Your task to perform on an android device: Go to location settings Image 0: 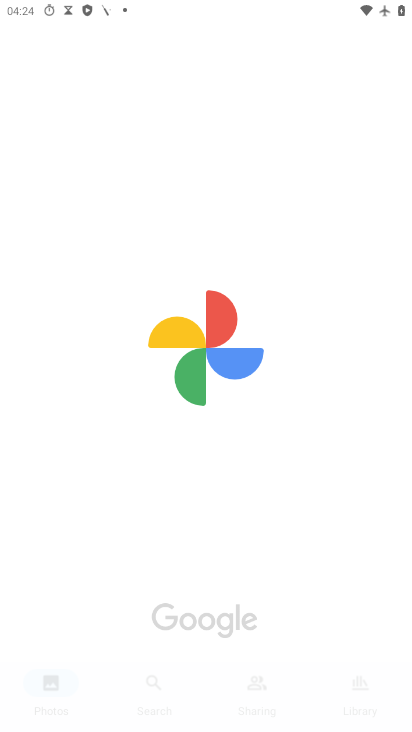
Step 0: drag from (277, 547) to (184, 25)
Your task to perform on an android device: Go to location settings Image 1: 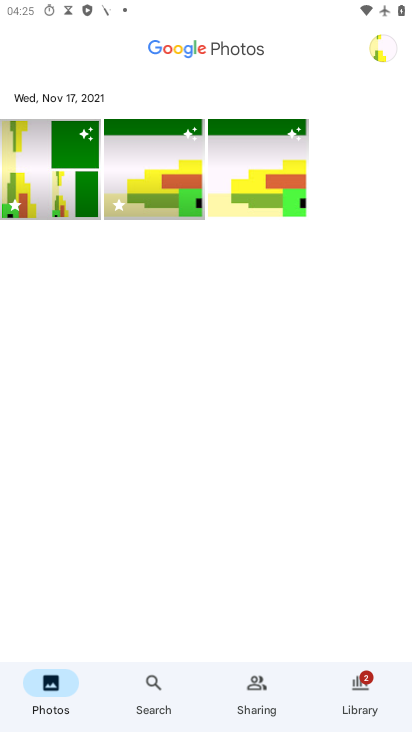
Step 1: press back button
Your task to perform on an android device: Go to location settings Image 2: 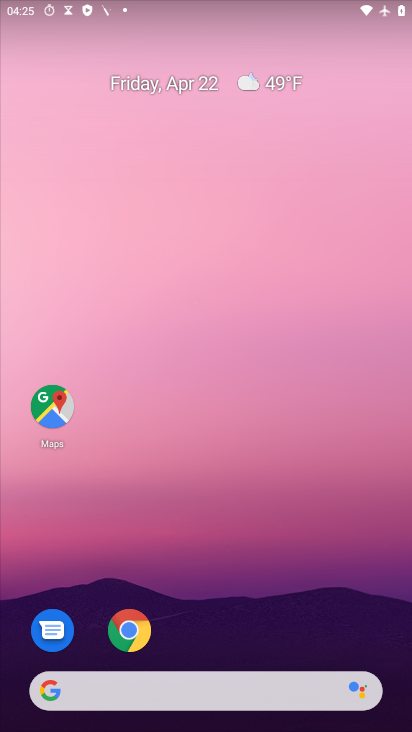
Step 2: drag from (289, 550) to (117, 1)
Your task to perform on an android device: Go to location settings Image 3: 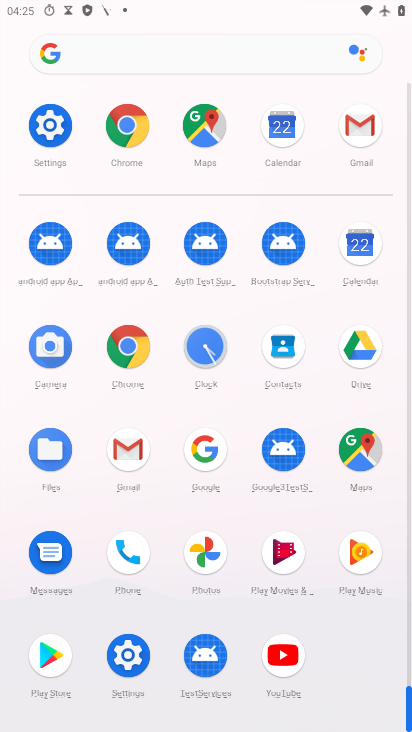
Step 3: click (47, 121)
Your task to perform on an android device: Go to location settings Image 4: 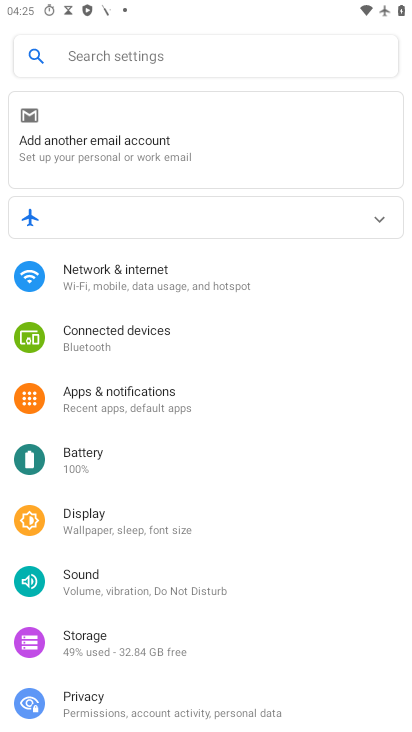
Step 4: drag from (316, 451) to (290, 115)
Your task to perform on an android device: Go to location settings Image 5: 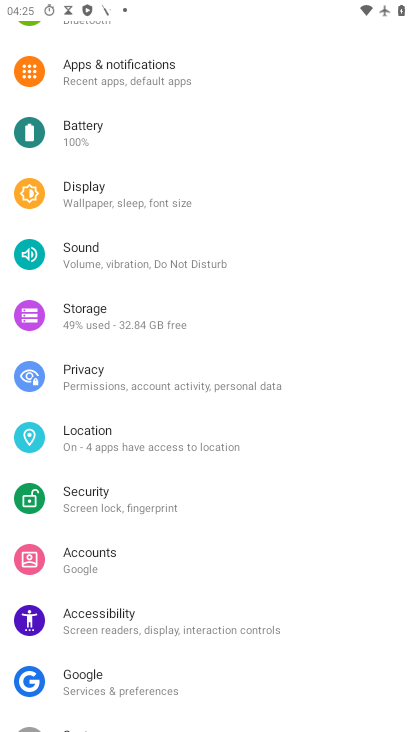
Step 5: click (113, 421)
Your task to perform on an android device: Go to location settings Image 6: 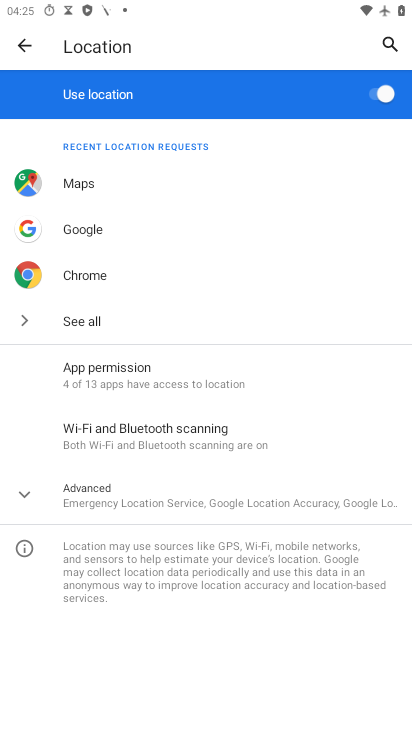
Step 6: click (28, 494)
Your task to perform on an android device: Go to location settings Image 7: 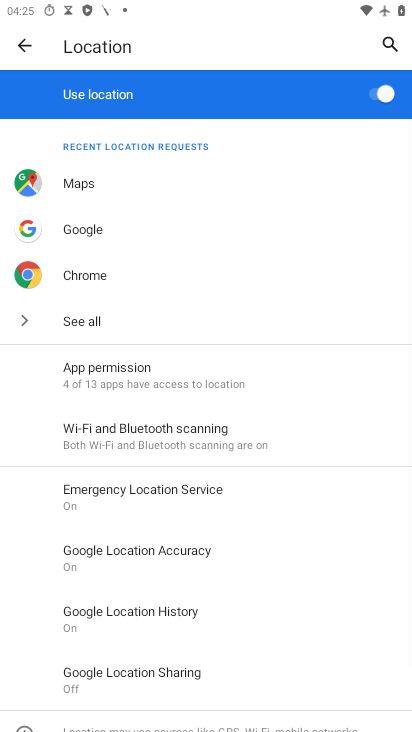
Step 7: task complete